Your task to perform on an android device: search for starred emails in the gmail app Image 0: 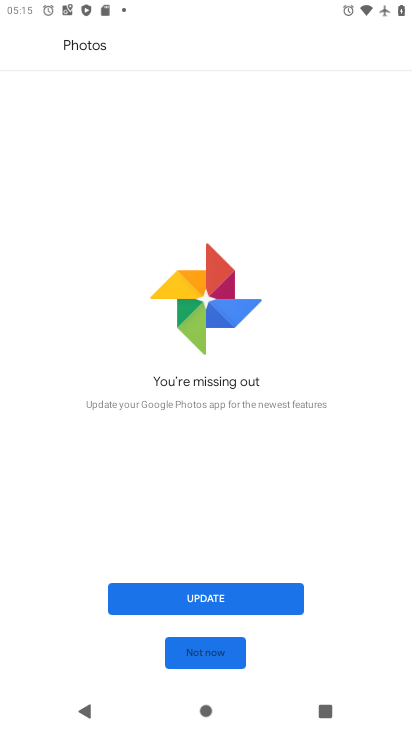
Step 0: press back button
Your task to perform on an android device: search for starred emails in the gmail app Image 1: 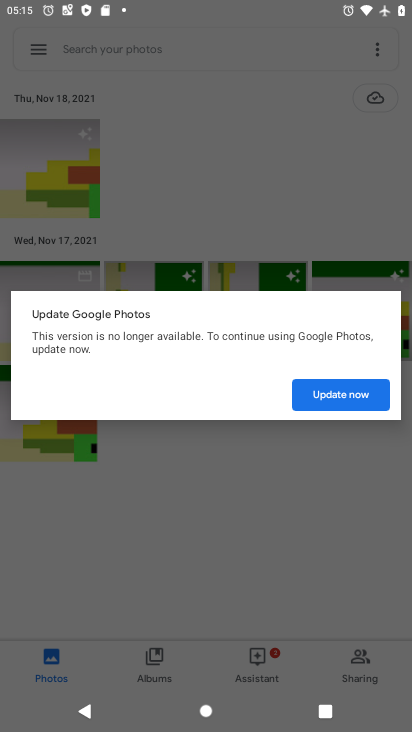
Step 1: press back button
Your task to perform on an android device: search for starred emails in the gmail app Image 2: 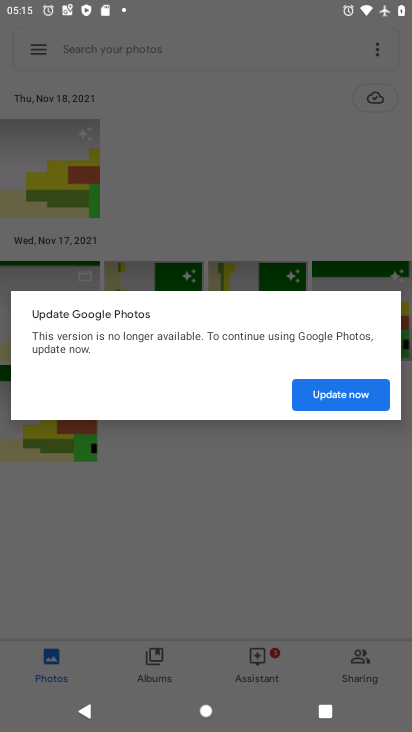
Step 2: press home button
Your task to perform on an android device: search for starred emails in the gmail app Image 3: 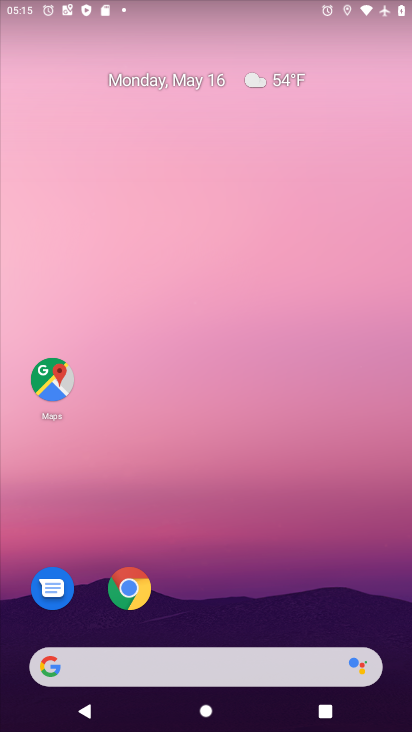
Step 3: drag from (245, 580) to (208, 51)
Your task to perform on an android device: search for starred emails in the gmail app Image 4: 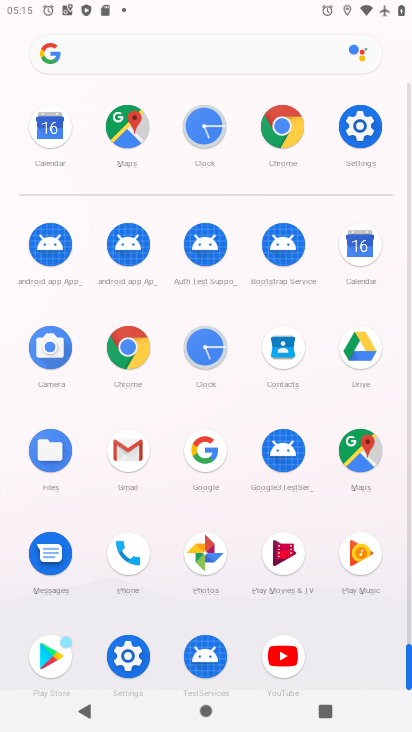
Step 4: click (128, 449)
Your task to perform on an android device: search for starred emails in the gmail app Image 5: 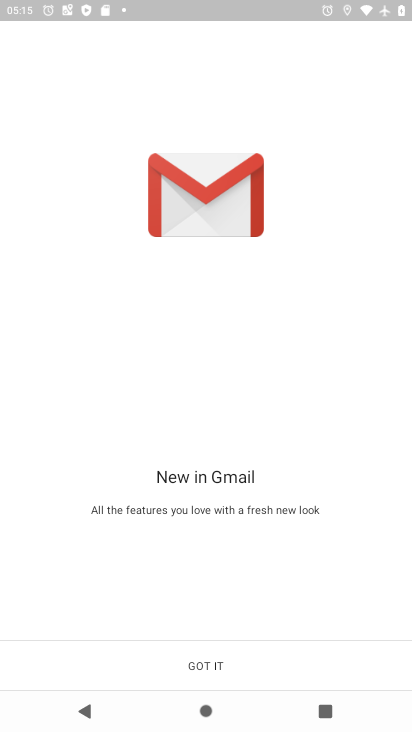
Step 5: click (162, 667)
Your task to perform on an android device: search for starred emails in the gmail app Image 6: 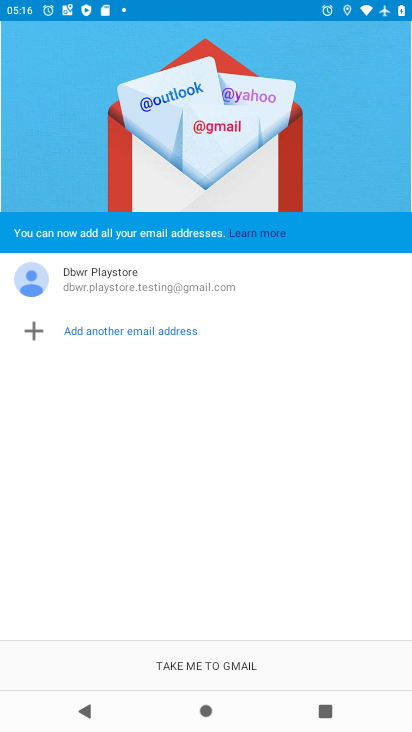
Step 6: click (183, 655)
Your task to perform on an android device: search for starred emails in the gmail app Image 7: 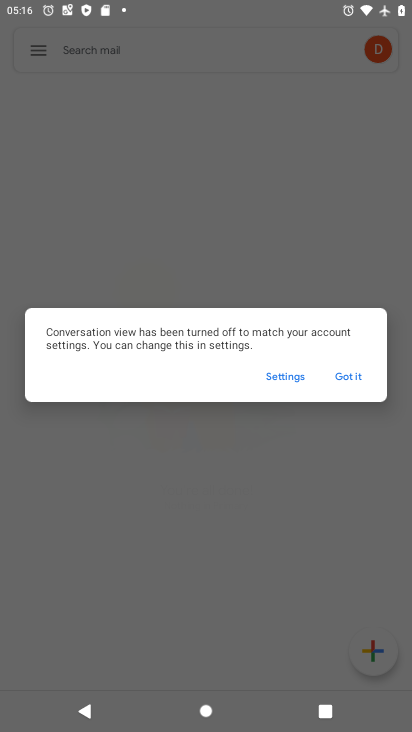
Step 7: click (357, 373)
Your task to perform on an android device: search for starred emails in the gmail app Image 8: 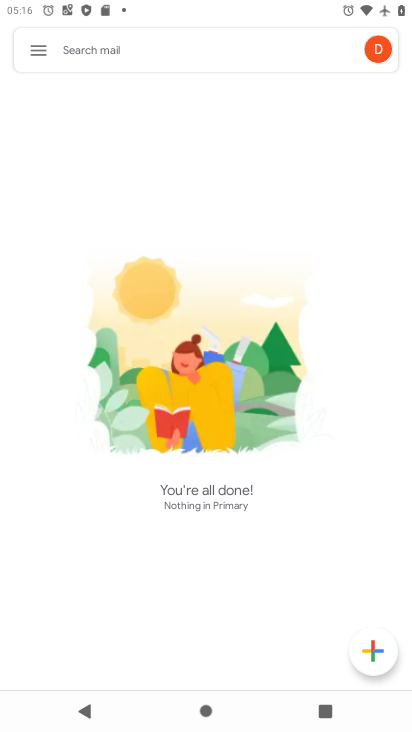
Step 8: click (42, 46)
Your task to perform on an android device: search for starred emails in the gmail app Image 9: 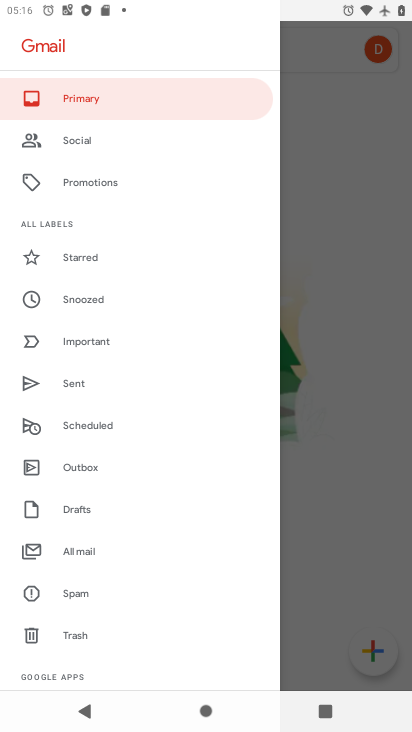
Step 9: click (98, 263)
Your task to perform on an android device: search for starred emails in the gmail app Image 10: 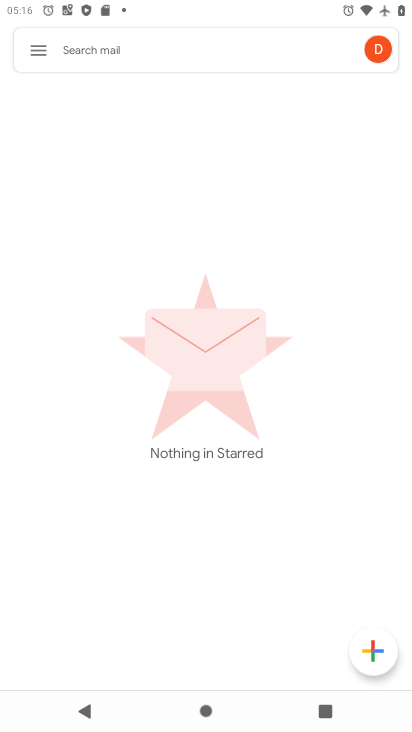
Step 10: click (35, 56)
Your task to perform on an android device: search for starred emails in the gmail app Image 11: 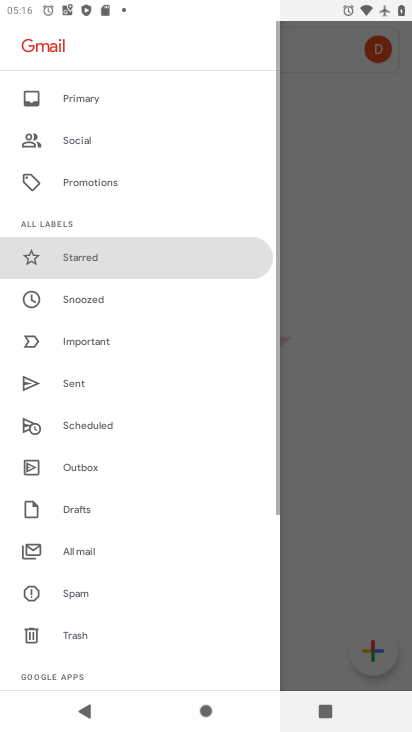
Step 11: click (96, 265)
Your task to perform on an android device: search for starred emails in the gmail app Image 12: 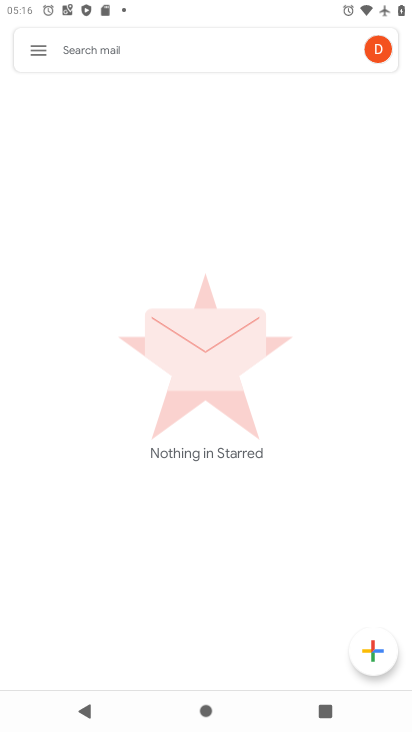
Step 12: task complete